Your task to perform on an android device: Open Youtube and go to "Your channel" Image 0: 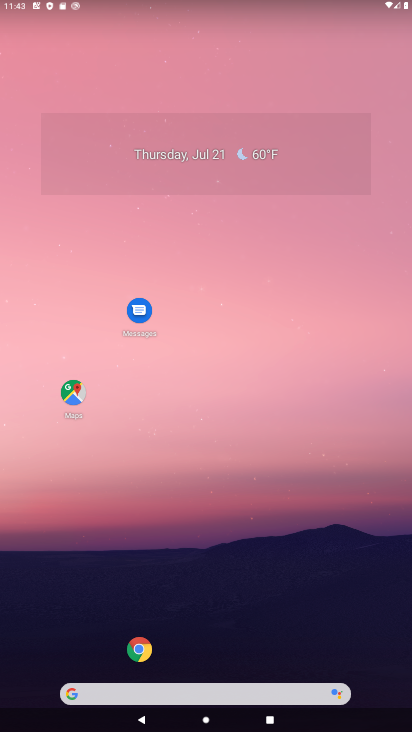
Step 0: click (154, 230)
Your task to perform on an android device: Open Youtube and go to "Your channel" Image 1: 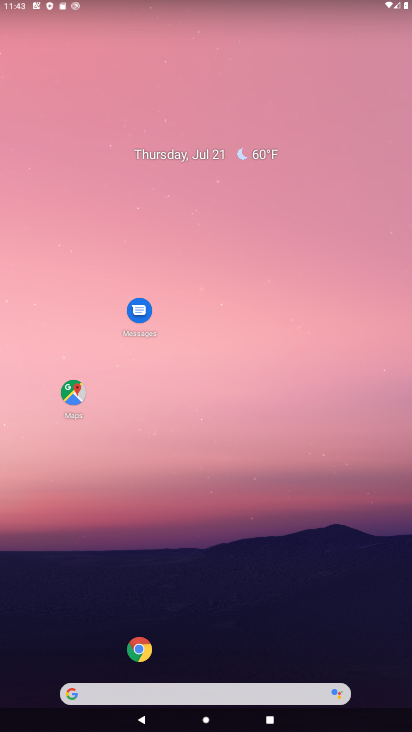
Step 1: drag from (2, 689) to (250, 154)
Your task to perform on an android device: Open Youtube and go to "Your channel" Image 2: 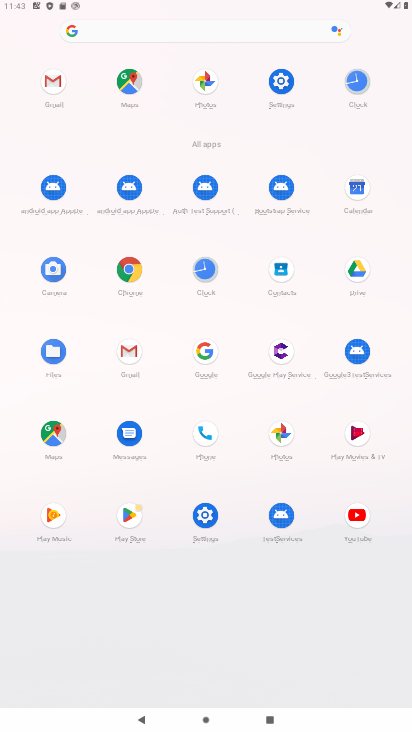
Step 2: click (353, 520)
Your task to perform on an android device: Open Youtube and go to "Your channel" Image 3: 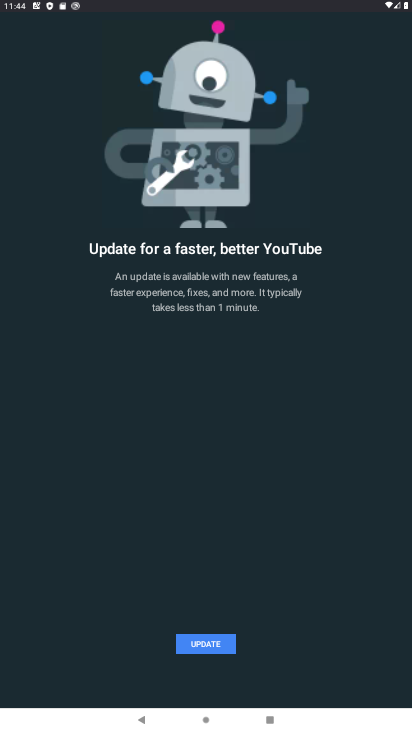
Step 3: click (212, 647)
Your task to perform on an android device: Open Youtube and go to "Your channel" Image 4: 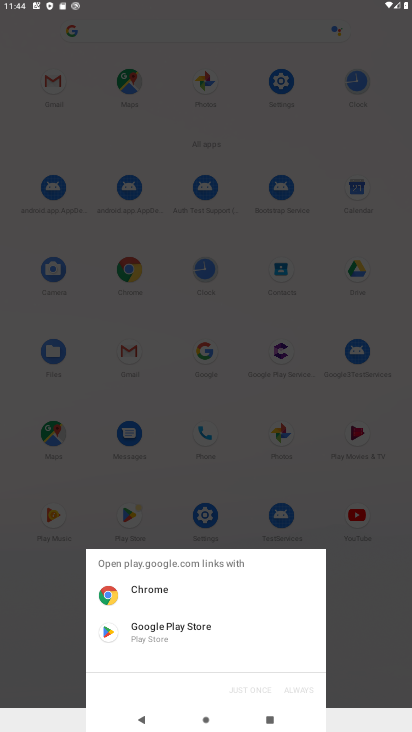
Step 4: click (144, 630)
Your task to perform on an android device: Open Youtube and go to "Your channel" Image 5: 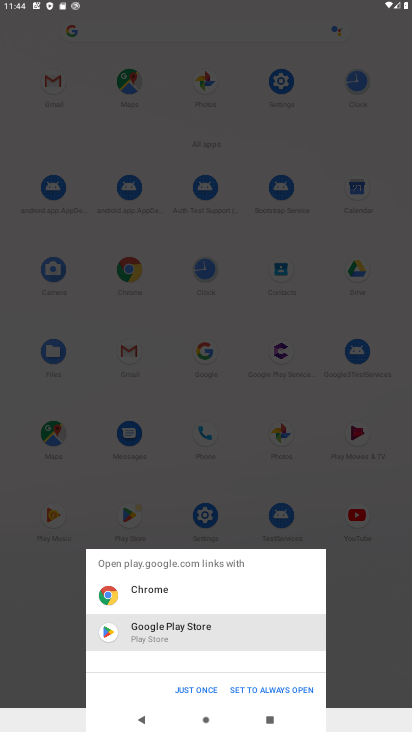
Step 5: click (211, 693)
Your task to perform on an android device: Open Youtube and go to "Your channel" Image 6: 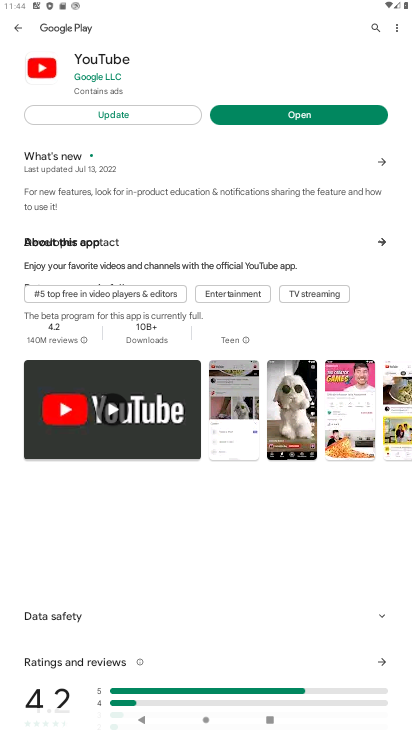
Step 6: click (278, 114)
Your task to perform on an android device: Open Youtube and go to "Your channel" Image 7: 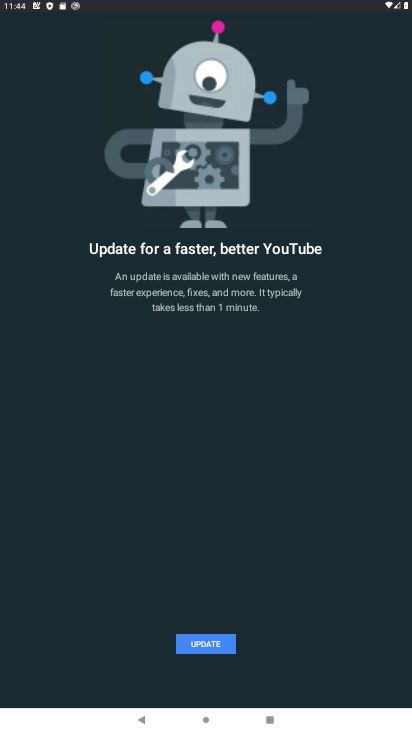
Step 7: task complete